Your task to perform on an android device: turn off notifications settings in the gmail app Image 0: 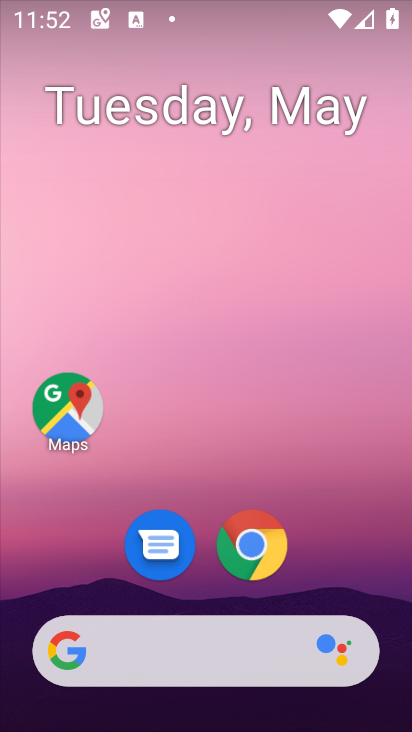
Step 0: drag from (217, 580) to (206, 256)
Your task to perform on an android device: turn off notifications settings in the gmail app Image 1: 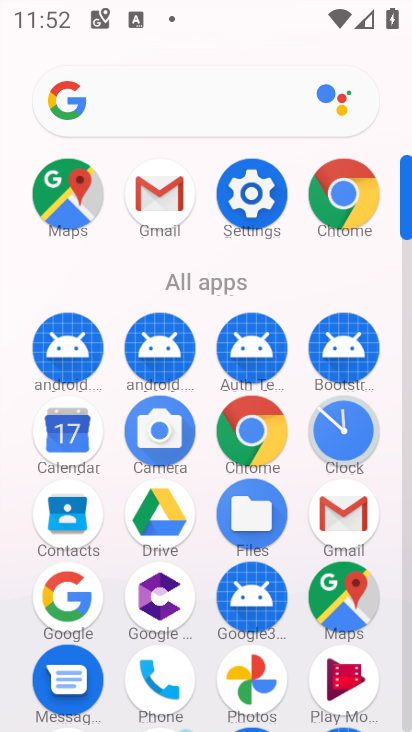
Step 1: click (346, 515)
Your task to perform on an android device: turn off notifications settings in the gmail app Image 2: 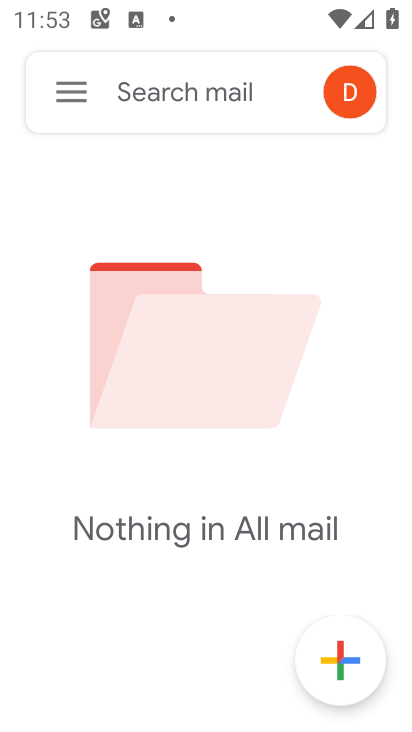
Step 2: click (68, 94)
Your task to perform on an android device: turn off notifications settings in the gmail app Image 3: 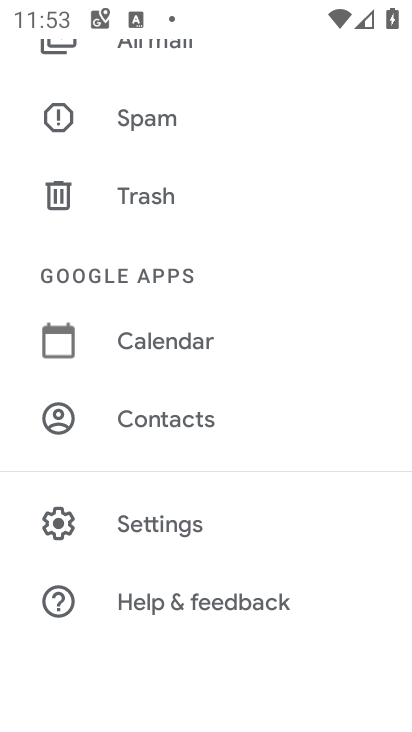
Step 3: click (160, 522)
Your task to perform on an android device: turn off notifications settings in the gmail app Image 4: 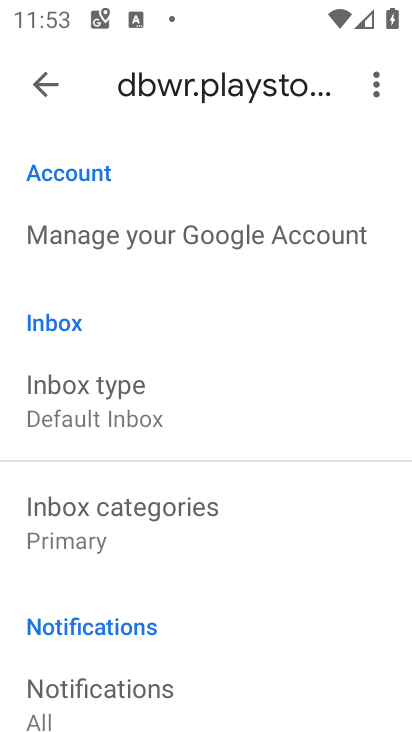
Step 4: drag from (114, 568) to (121, 223)
Your task to perform on an android device: turn off notifications settings in the gmail app Image 5: 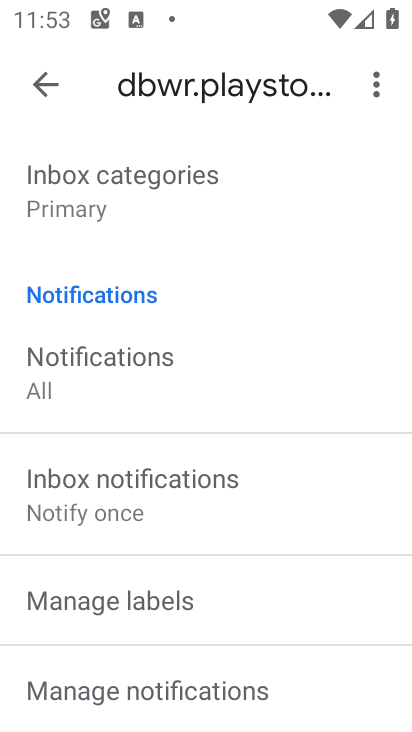
Step 5: click (141, 357)
Your task to perform on an android device: turn off notifications settings in the gmail app Image 6: 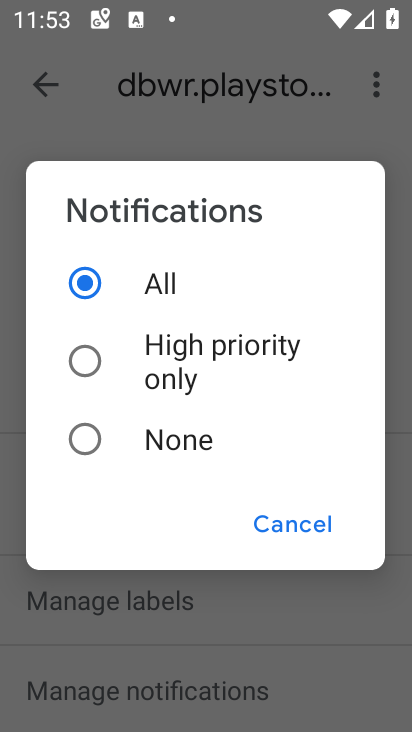
Step 6: click (167, 443)
Your task to perform on an android device: turn off notifications settings in the gmail app Image 7: 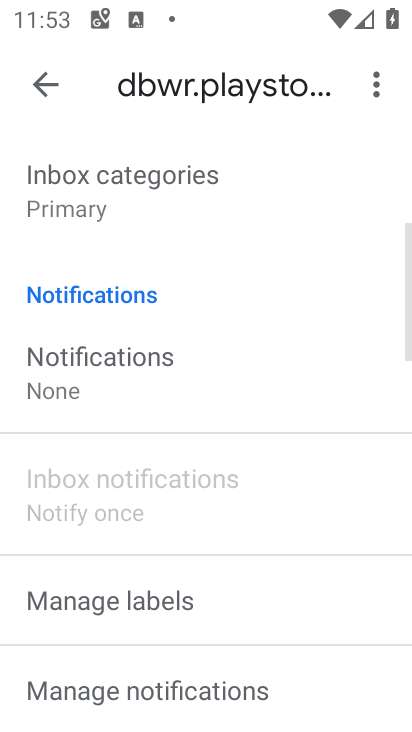
Step 7: task complete